Your task to perform on an android device: turn off wifi Image 0: 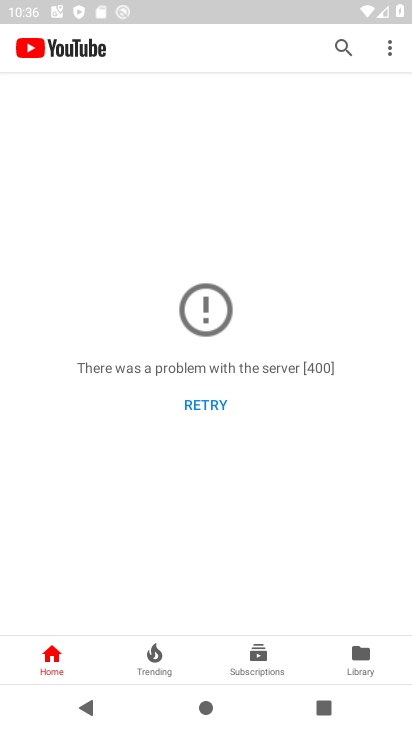
Step 0: press back button
Your task to perform on an android device: turn off wifi Image 1: 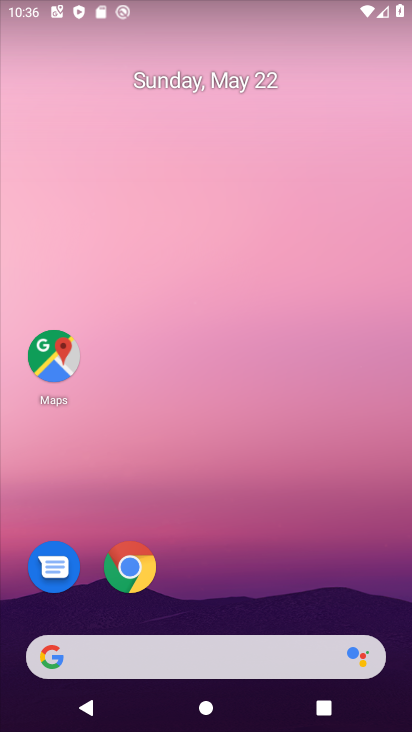
Step 1: drag from (222, 578) to (213, 0)
Your task to perform on an android device: turn off wifi Image 2: 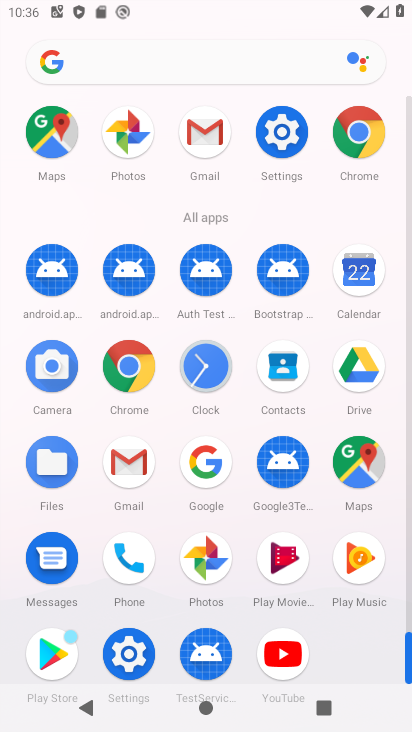
Step 2: click (129, 651)
Your task to perform on an android device: turn off wifi Image 3: 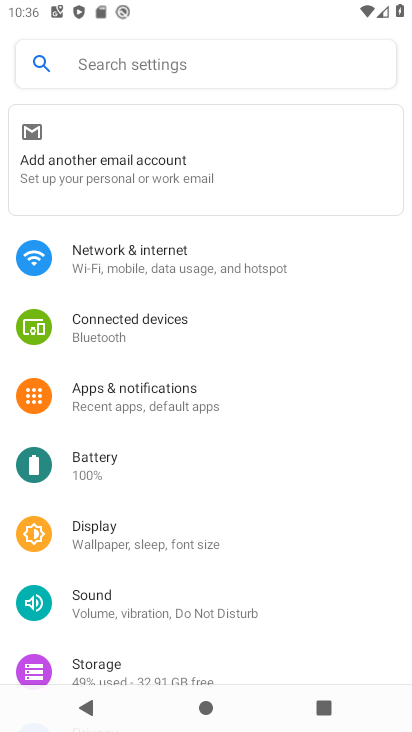
Step 3: click (166, 251)
Your task to perform on an android device: turn off wifi Image 4: 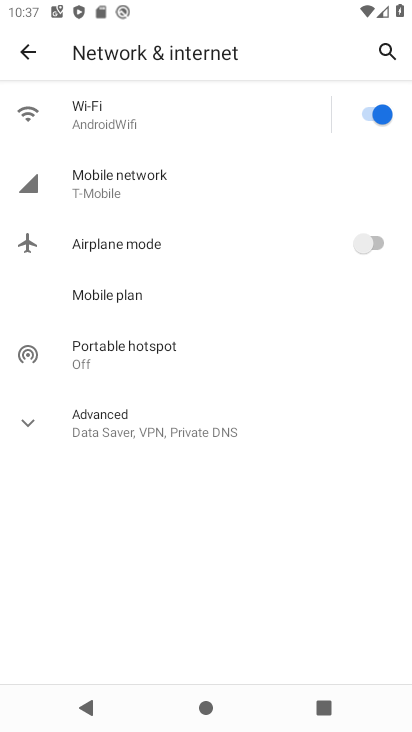
Step 4: click (370, 110)
Your task to perform on an android device: turn off wifi Image 5: 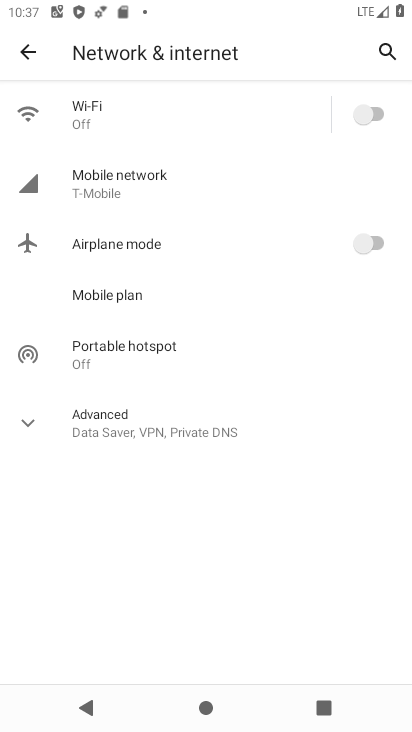
Step 5: task complete